Your task to perform on an android device: When is my next meeting? Image 0: 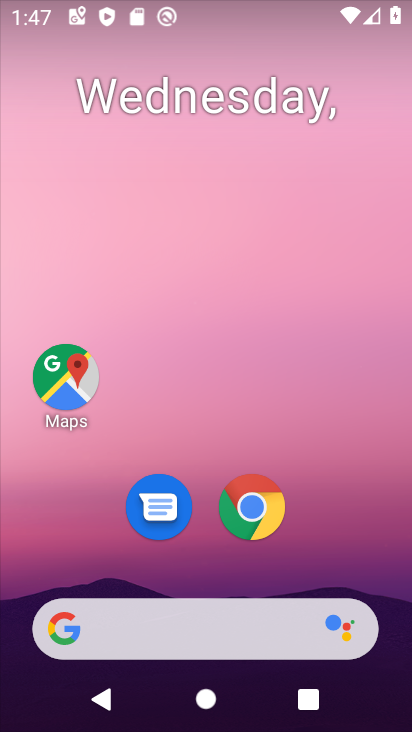
Step 0: drag from (290, 533) to (291, 271)
Your task to perform on an android device: When is my next meeting? Image 1: 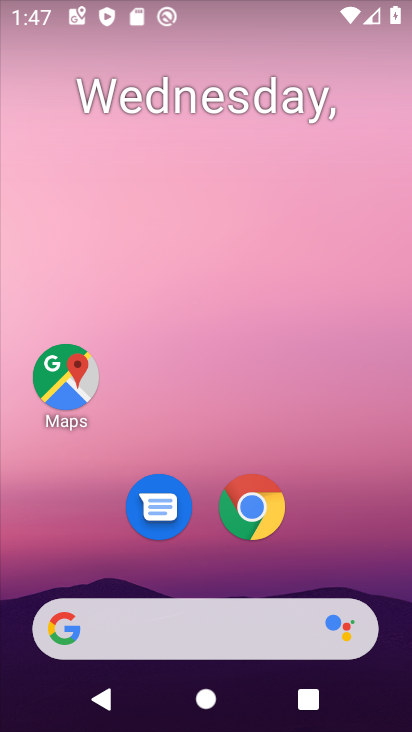
Step 1: drag from (318, 564) to (316, 223)
Your task to perform on an android device: When is my next meeting? Image 2: 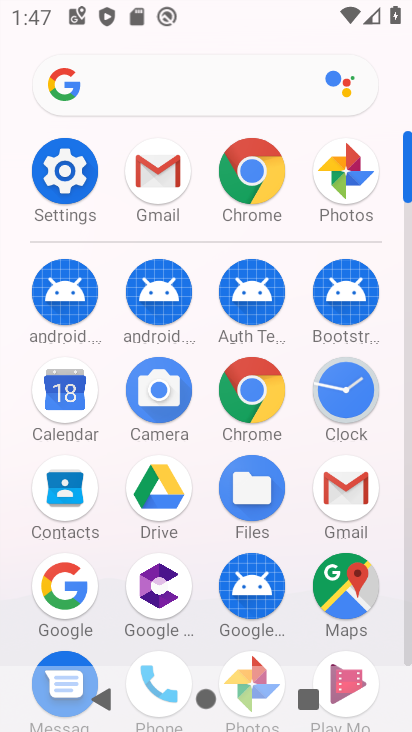
Step 2: click (48, 398)
Your task to perform on an android device: When is my next meeting? Image 3: 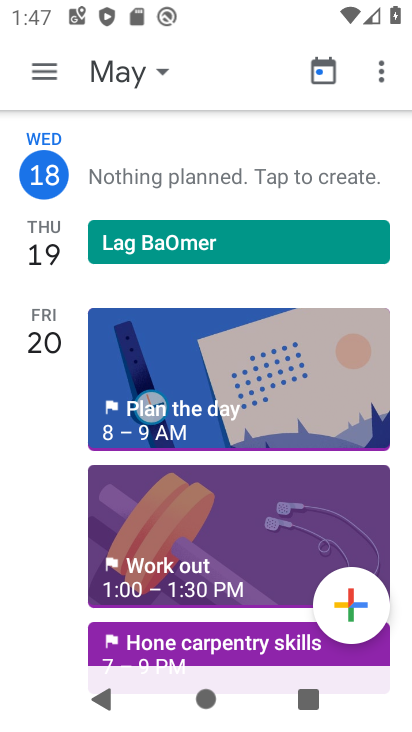
Step 3: task complete